Your task to perform on an android device: Go to sound settings Image 0: 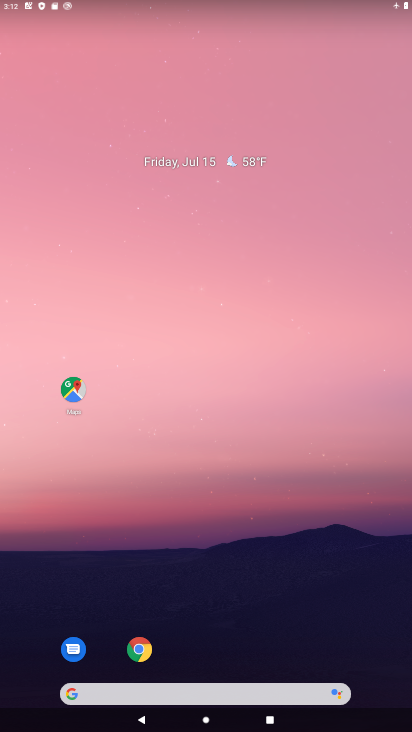
Step 0: drag from (238, 729) to (236, 283)
Your task to perform on an android device: Go to sound settings Image 1: 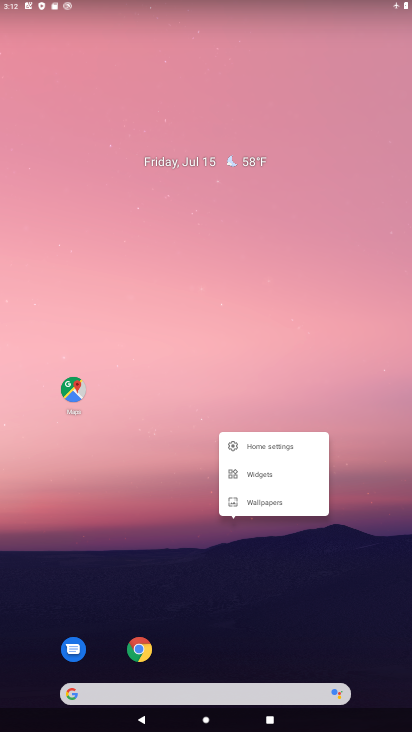
Step 1: click (298, 340)
Your task to perform on an android device: Go to sound settings Image 2: 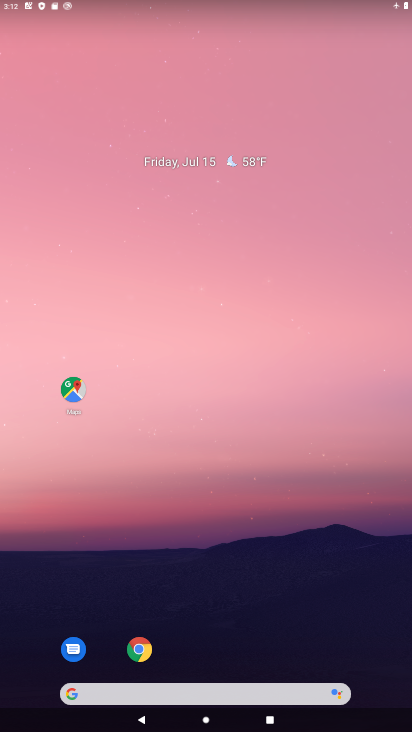
Step 2: drag from (225, 717) to (229, 162)
Your task to perform on an android device: Go to sound settings Image 3: 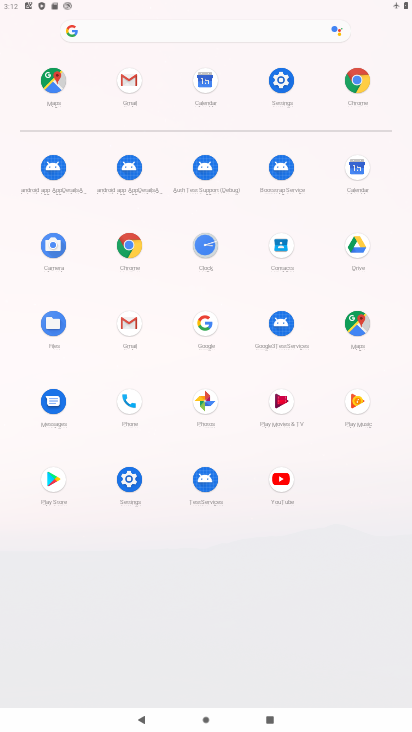
Step 3: click (281, 85)
Your task to perform on an android device: Go to sound settings Image 4: 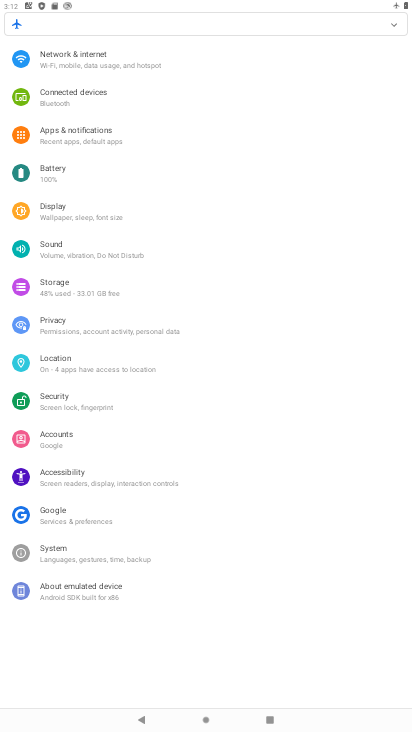
Step 4: click (59, 243)
Your task to perform on an android device: Go to sound settings Image 5: 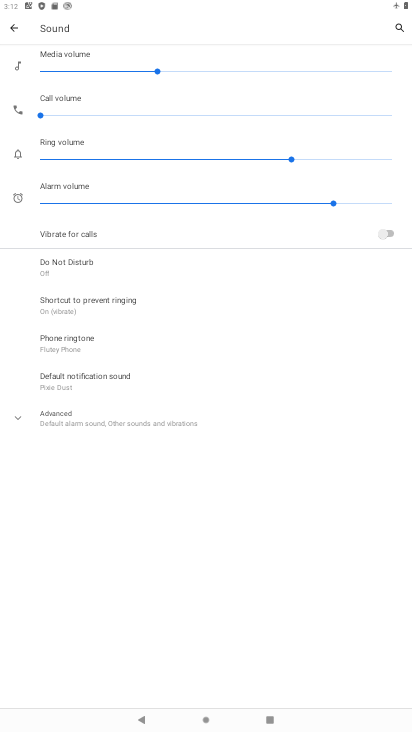
Step 5: task complete